Your task to perform on an android device: turn on the 24-hour format for clock Image 0: 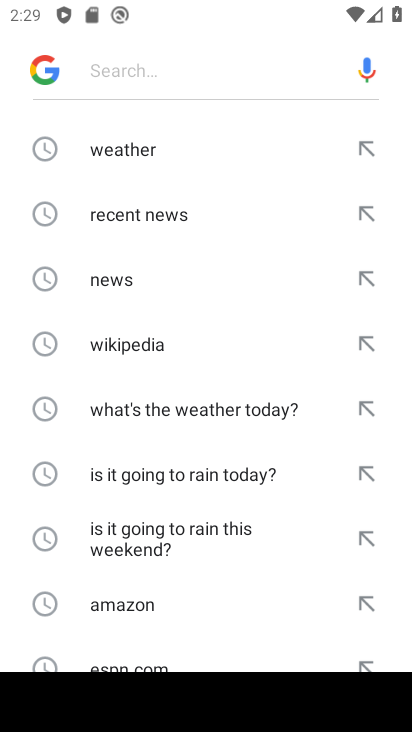
Step 0: press home button
Your task to perform on an android device: turn on the 24-hour format for clock Image 1: 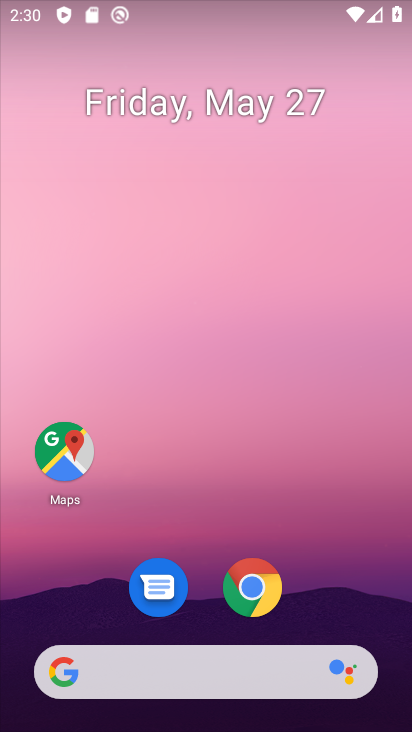
Step 1: drag from (330, 584) to (202, 186)
Your task to perform on an android device: turn on the 24-hour format for clock Image 2: 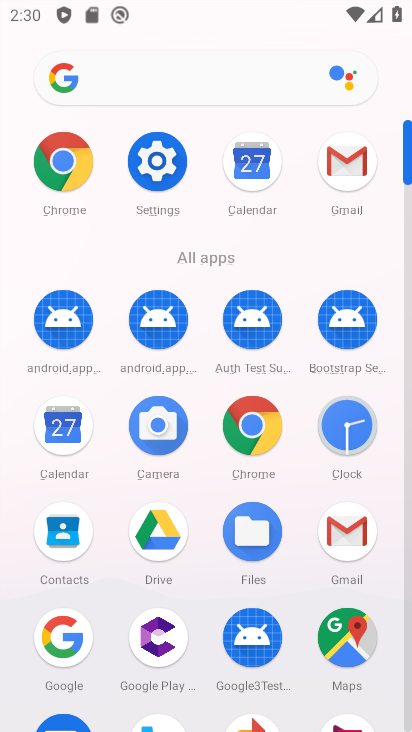
Step 2: click (347, 435)
Your task to perform on an android device: turn on the 24-hour format for clock Image 3: 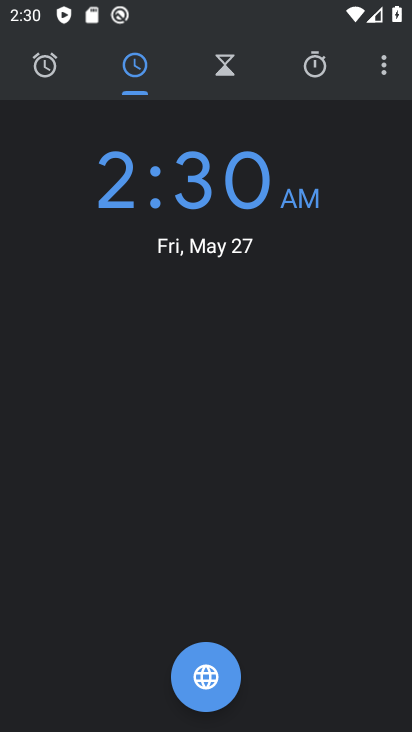
Step 3: click (384, 69)
Your task to perform on an android device: turn on the 24-hour format for clock Image 4: 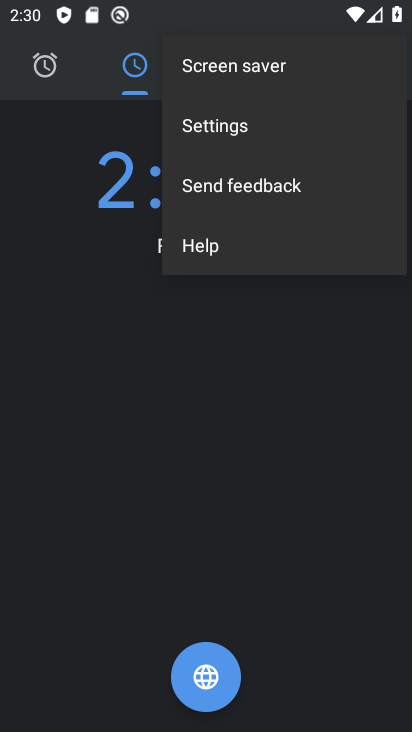
Step 4: click (231, 135)
Your task to perform on an android device: turn on the 24-hour format for clock Image 5: 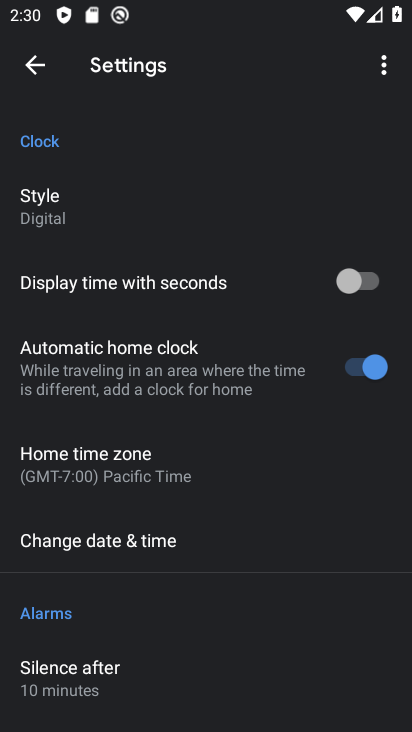
Step 5: click (168, 543)
Your task to perform on an android device: turn on the 24-hour format for clock Image 6: 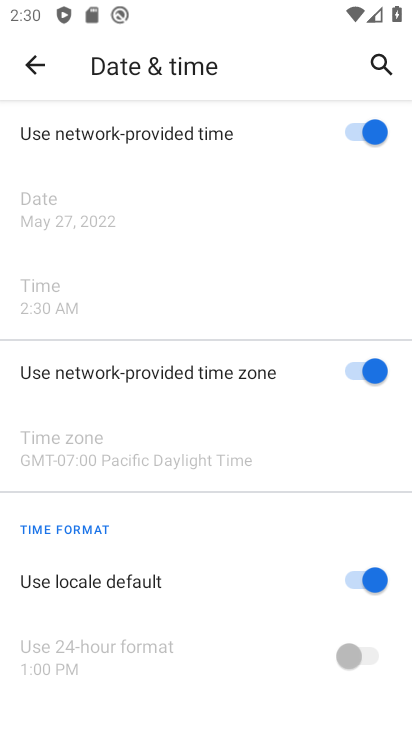
Step 6: click (357, 655)
Your task to perform on an android device: turn on the 24-hour format for clock Image 7: 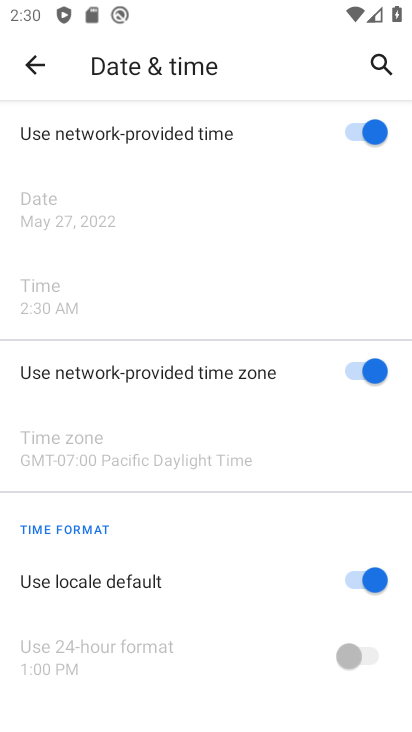
Step 7: click (353, 580)
Your task to perform on an android device: turn on the 24-hour format for clock Image 8: 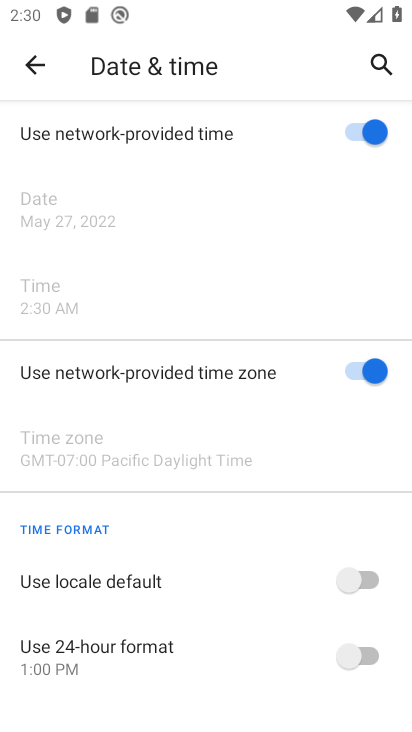
Step 8: click (360, 653)
Your task to perform on an android device: turn on the 24-hour format for clock Image 9: 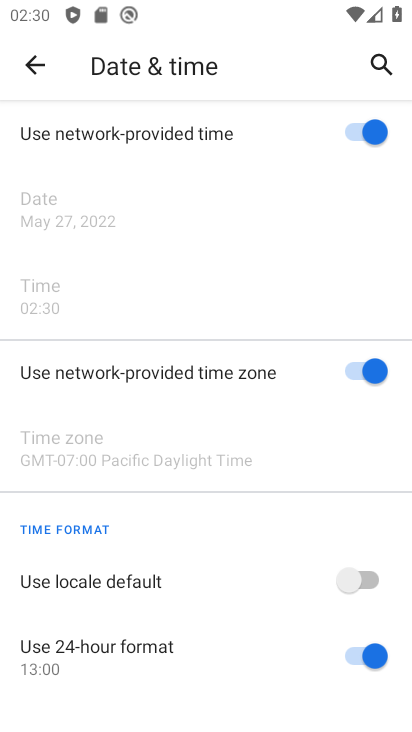
Step 9: task complete